Your task to perform on an android device: turn off location Image 0: 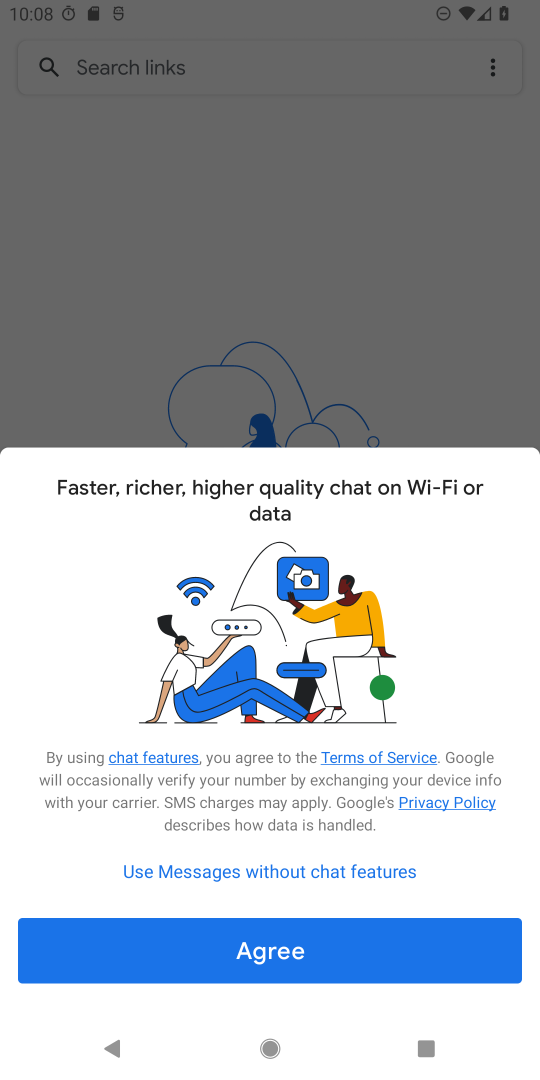
Step 0: click (301, 933)
Your task to perform on an android device: turn off location Image 1: 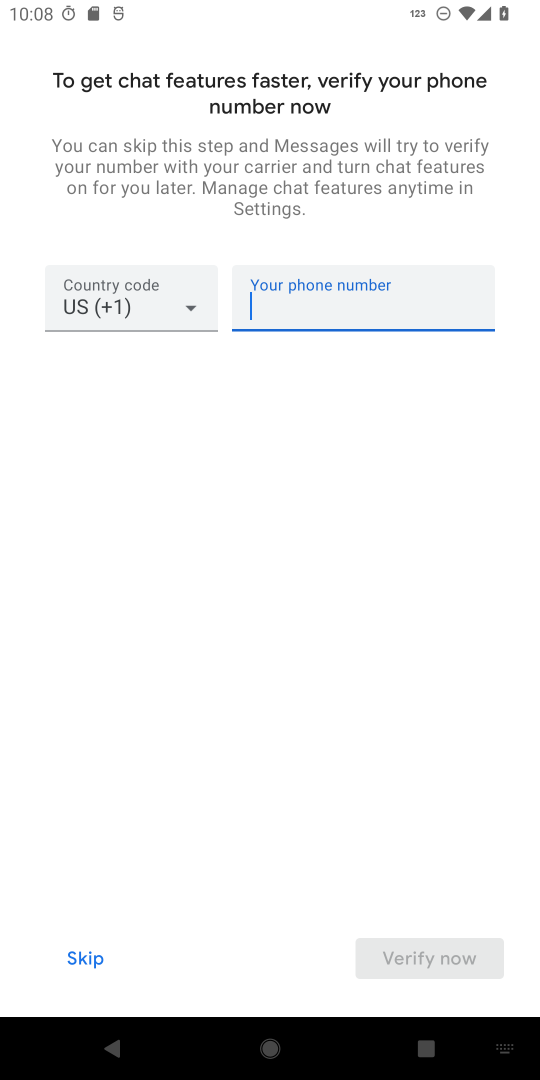
Step 1: press home button
Your task to perform on an android device: turn off location Image 2: 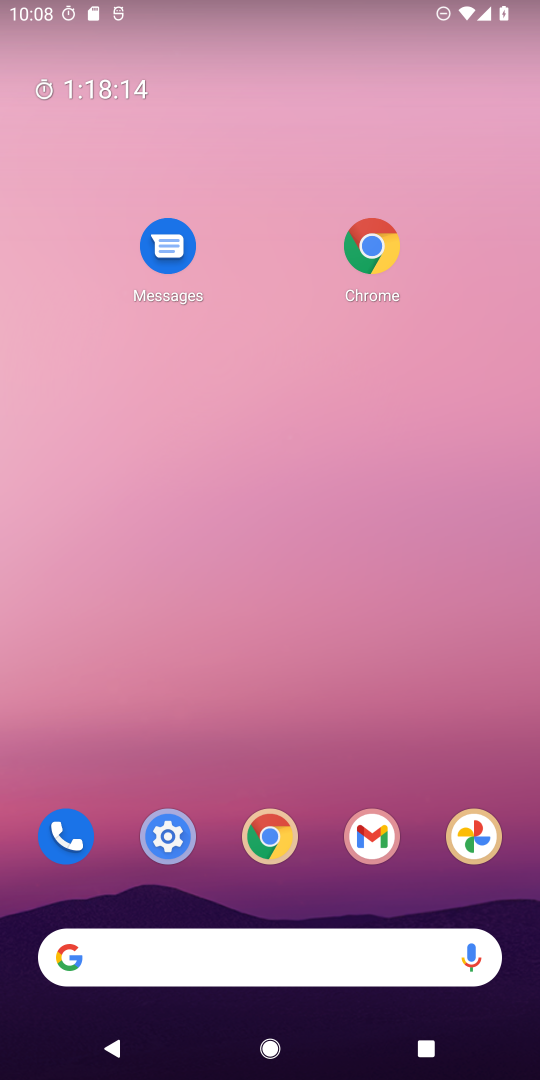
Step 2: drag from (197, 678) to (233, 333)
Your task to perform on an android device: turn off location Image 3: 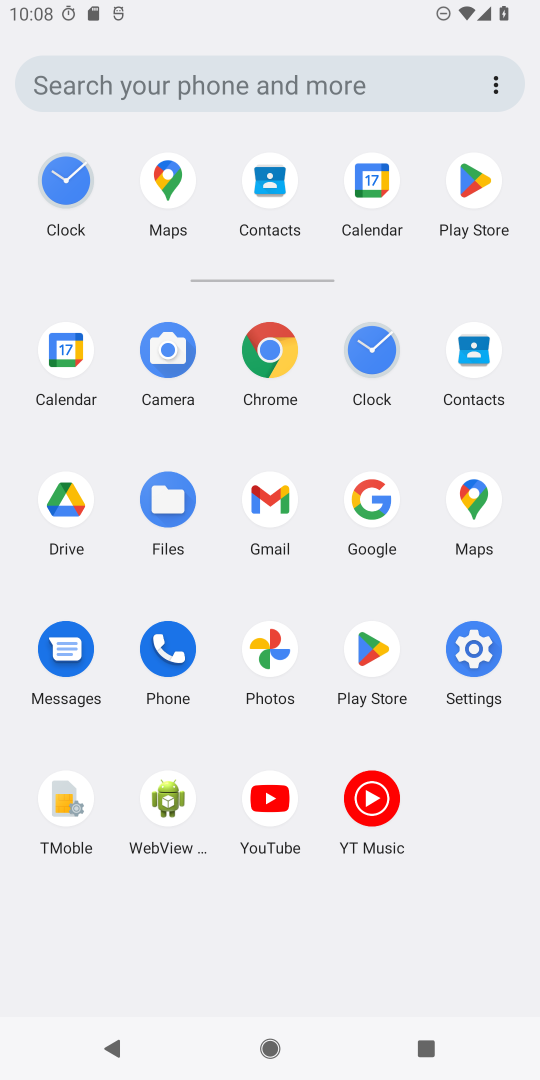
Step 3: click (465, 645)
Your task to perform on an android device: turn off location Image 4: 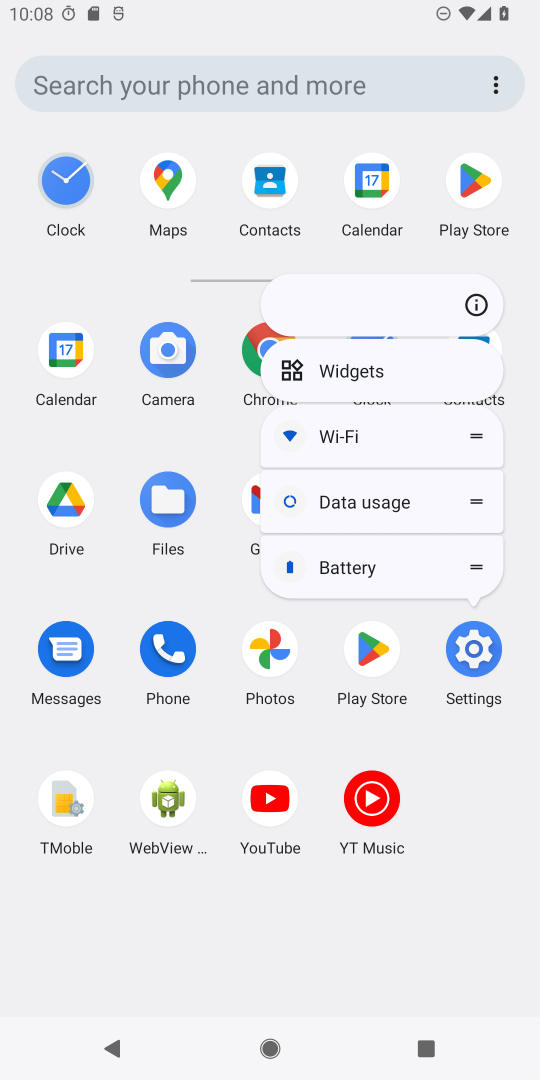
Step 4: click (460, 647)
Your task to perform on an android device: turn off location Image 5: 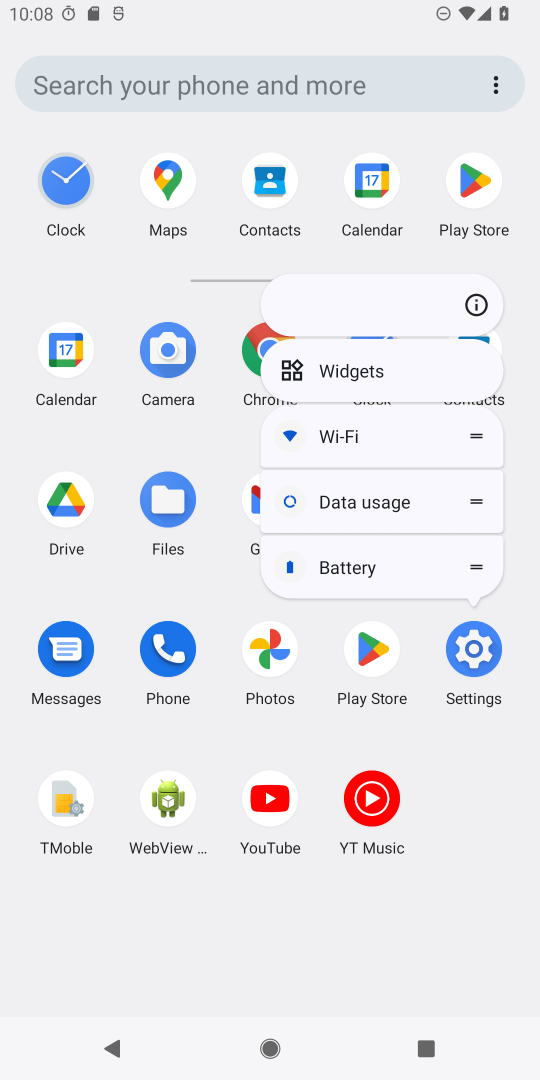
Step 5: click (475, 649)
Your task to perform on an android device: turn off location Image 6: 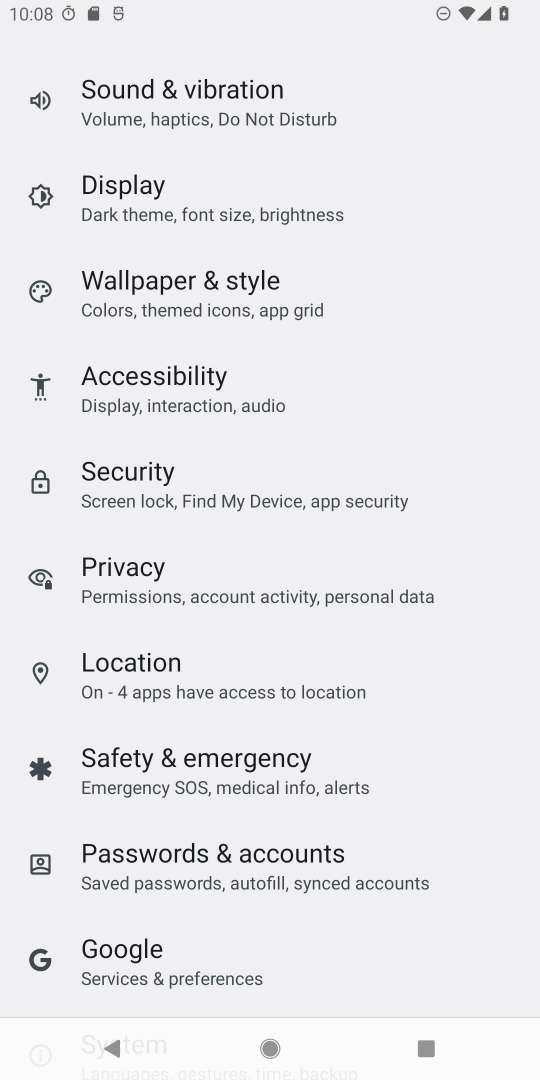
Step 6: click (188, 680)
Your task to perform on an android device: turn off location Image 7: 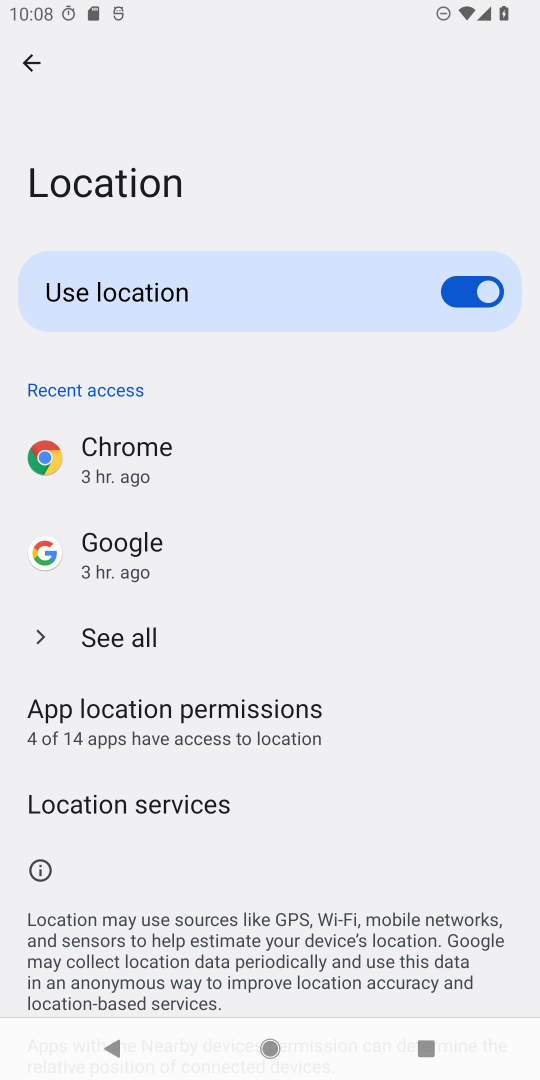
Step 7: click (483, 272)
Your task to perform on an android device: turn off location Image 8: 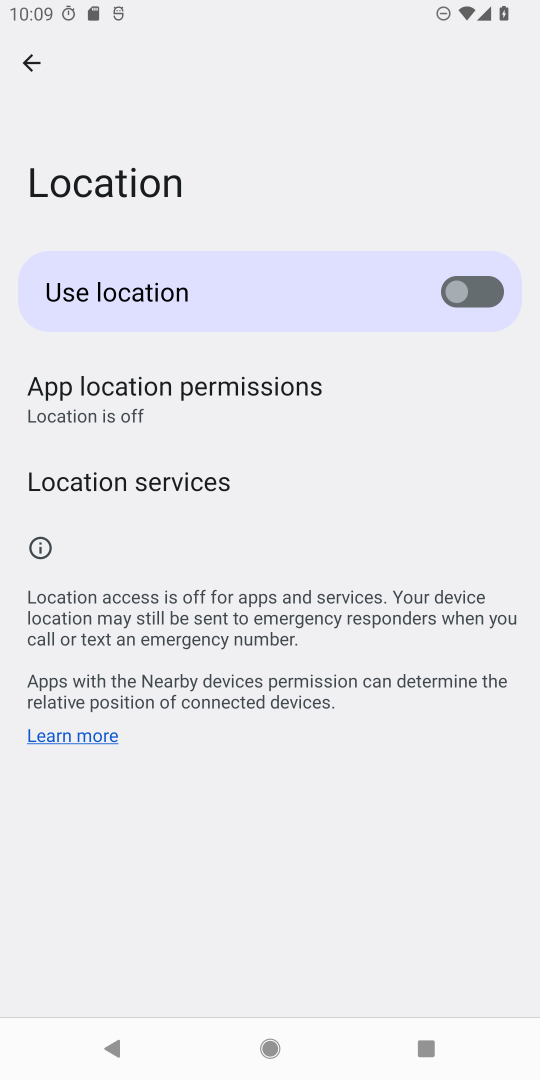
Step 8: task complete